Your task to perform on an android device: Go to Maps Image 0: 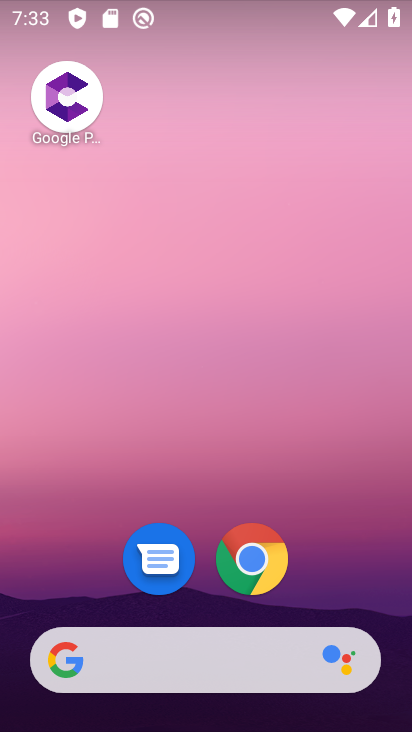
Step 0: drag from (185, 627) to (214, 4)
Your task to perform on an android device: Go to Maps Image 1: 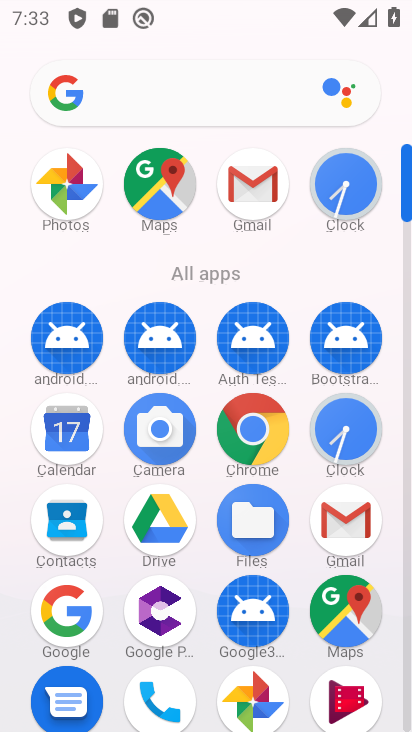
Step 1: click (339, 614)
Your task to perform on an android device: Go to Maps Image 2: 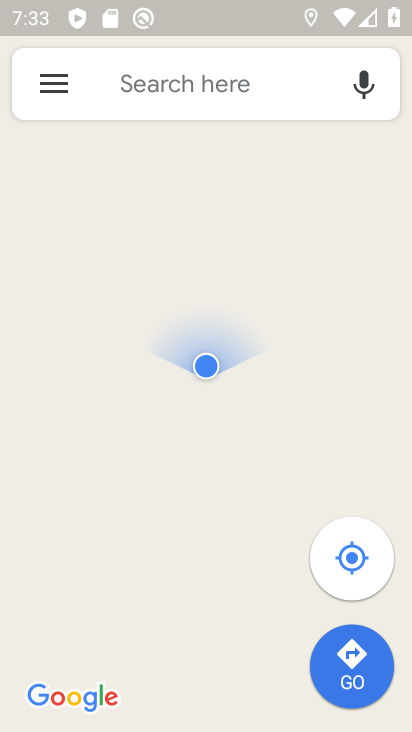
Step 2: task complete